Your task to perform on an android device: View the shopping cart on costco.com. Add "bose soundlink mini" to the cart on costco.com Image 0: 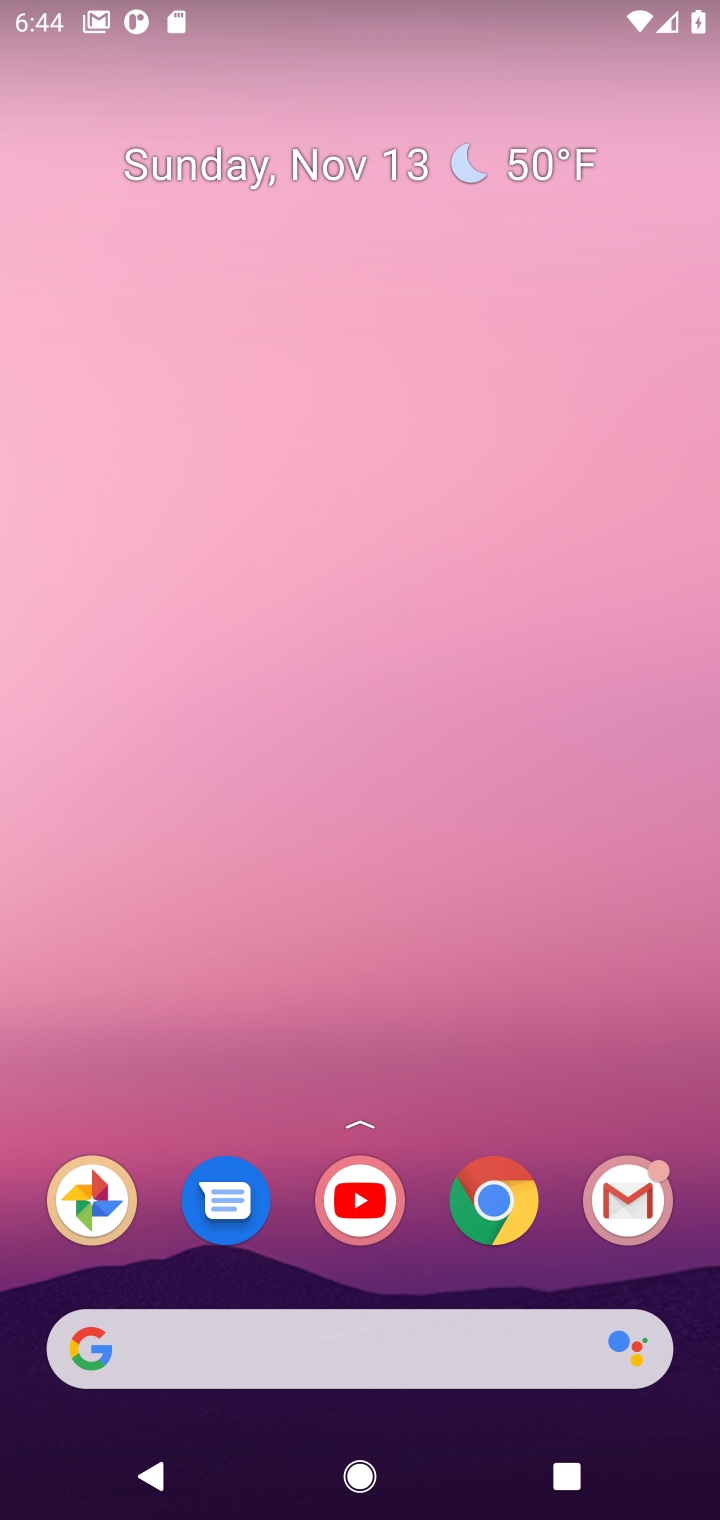
Step 0: click (490, 1212)
Your task to perform on an android device: View the shopping cart on costco.com. Add "bose soundlink mini" to the cart on costco.com Image 1: 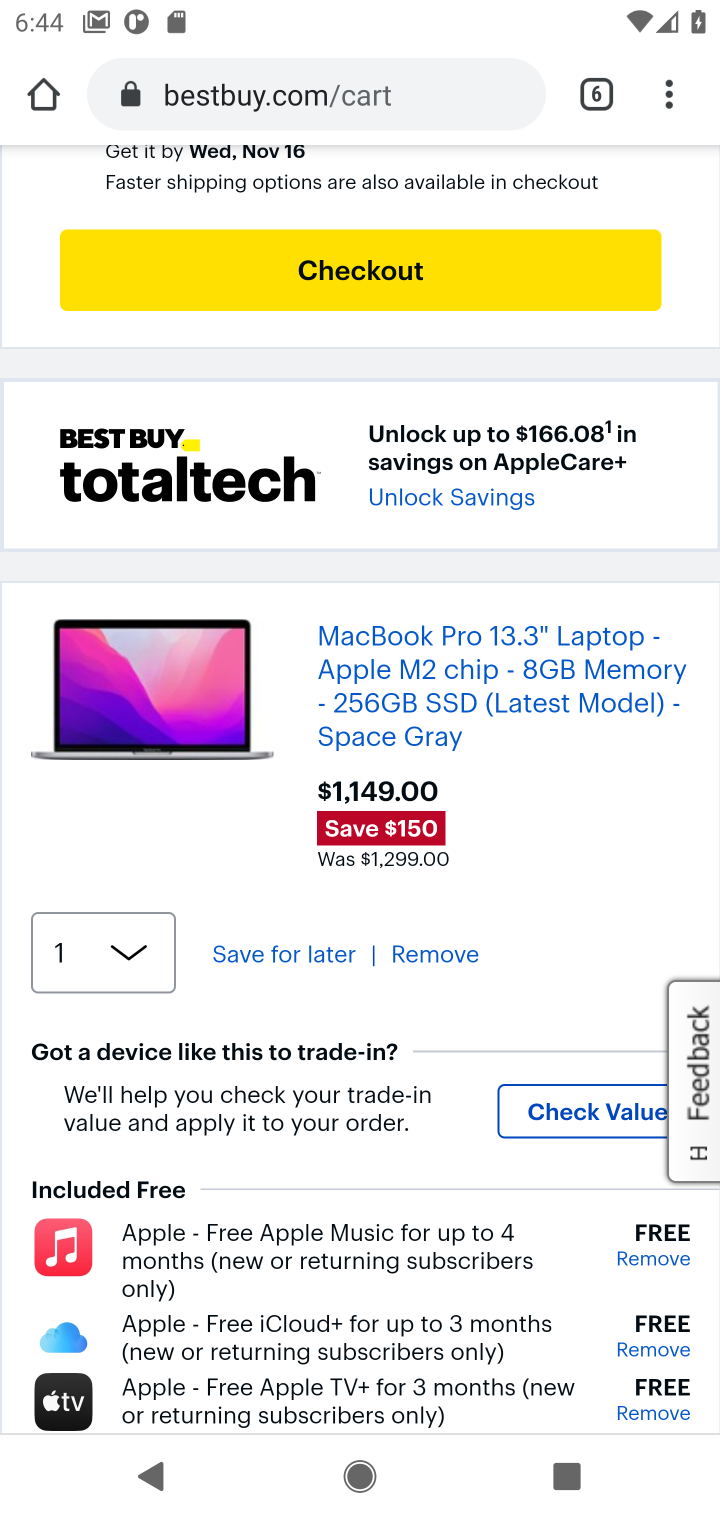
Step 1: click (594, 99)
Your task to perform on an android device: View the shopping cart on costco.com. Add "bose soundlink mini" to the cart on costco.com Image 2: 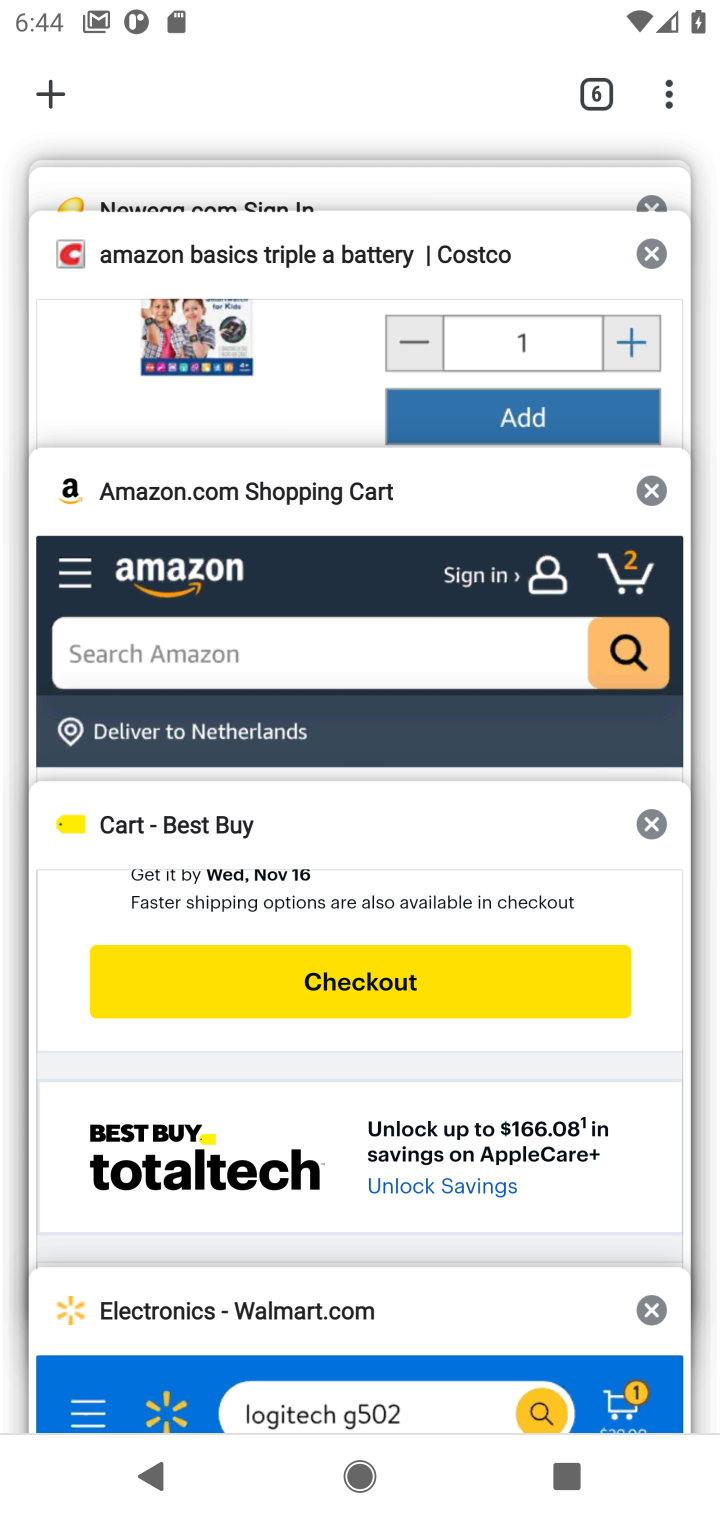
Step 2: click (398, 324)
Your task to perform on an android device: View the shopping cart on costco.com. Add "bose soundlink mini" to the cart on costco.com Image 3: 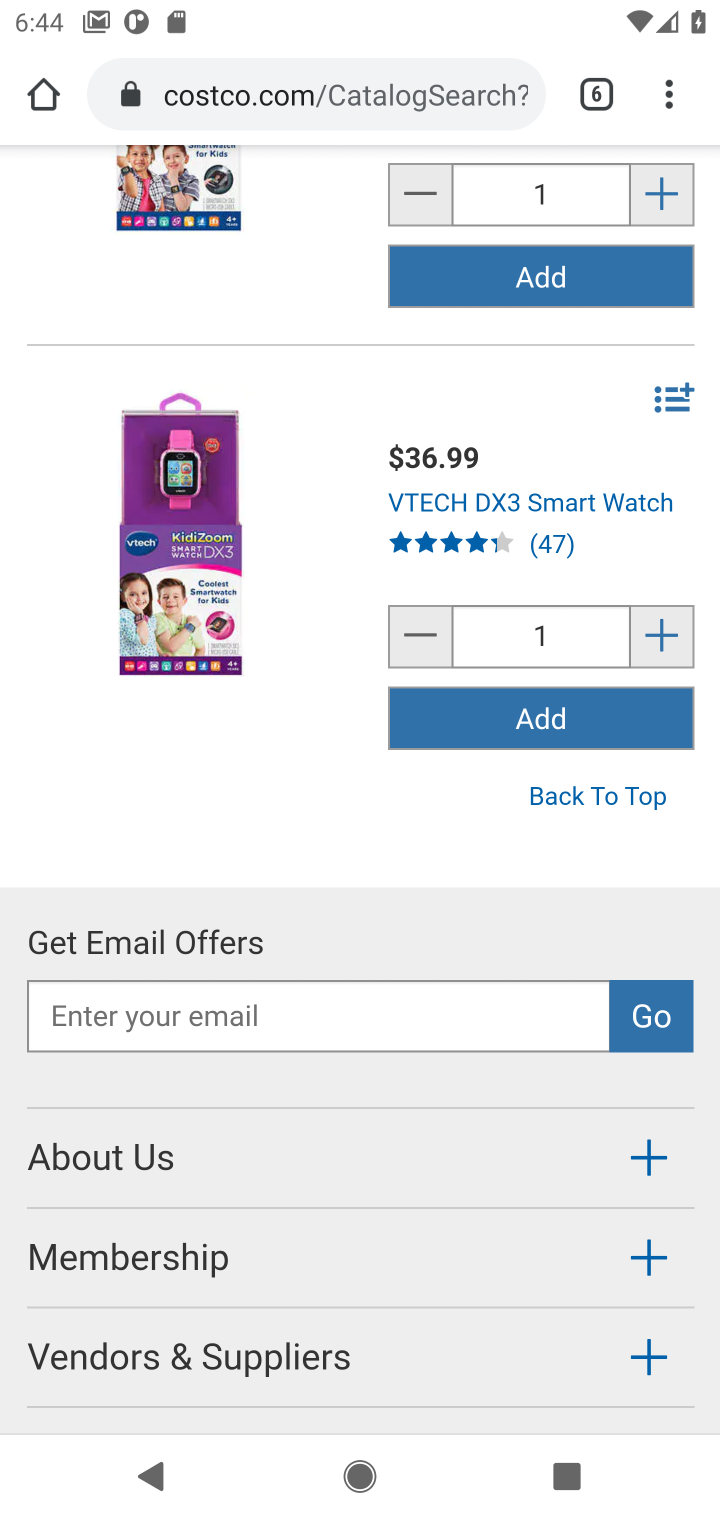
Step 3: drag from (306, 387) to (214, 1194)
Your task to perform on an android device: View the shopping cart on costco.com. Add "bose soundlink mini" to the cart on costco.com Image 4: 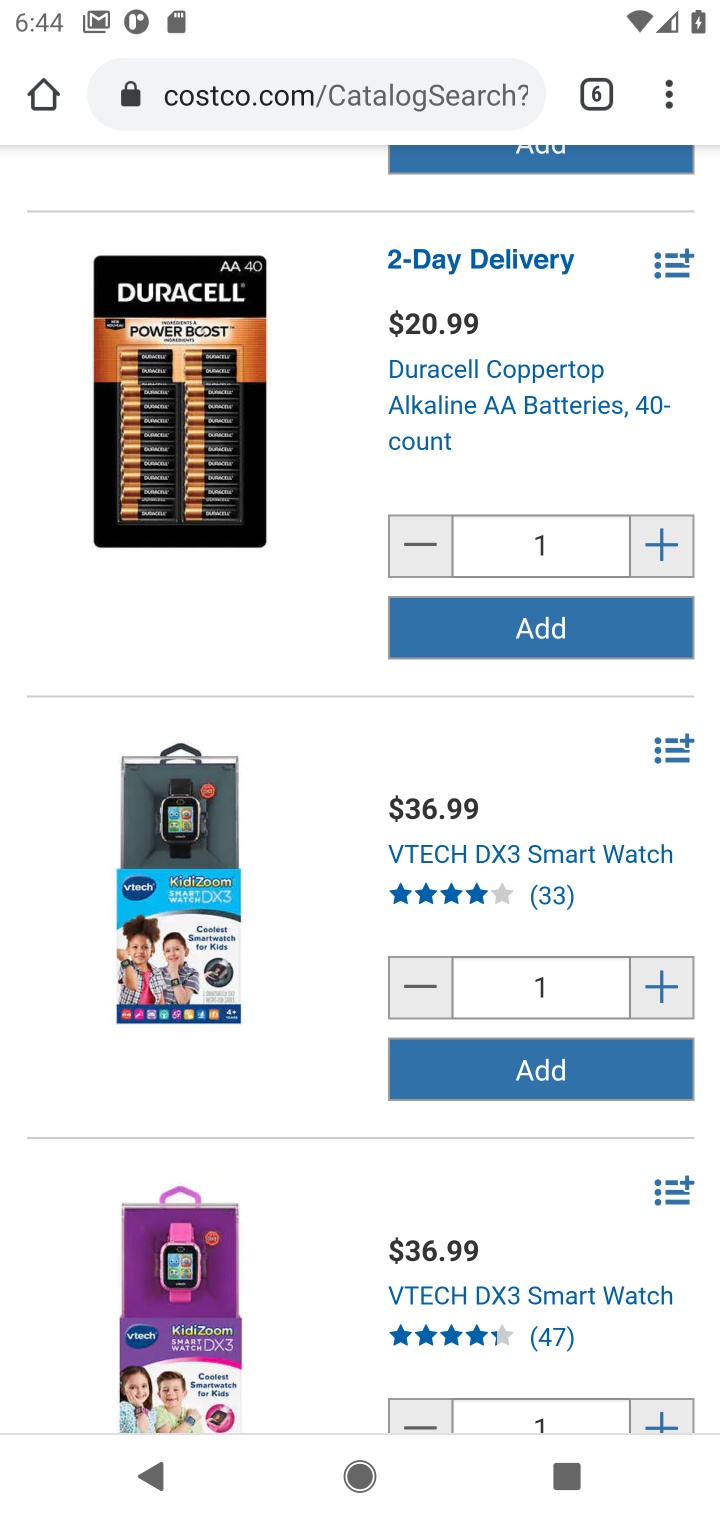
Step 4: drag from (347, 316) to (406, 1271)
Your task to perform on an android device: View the shopping cart on costco.com. Add "bose soundlink mini" to the cart on costco.com Image 5: 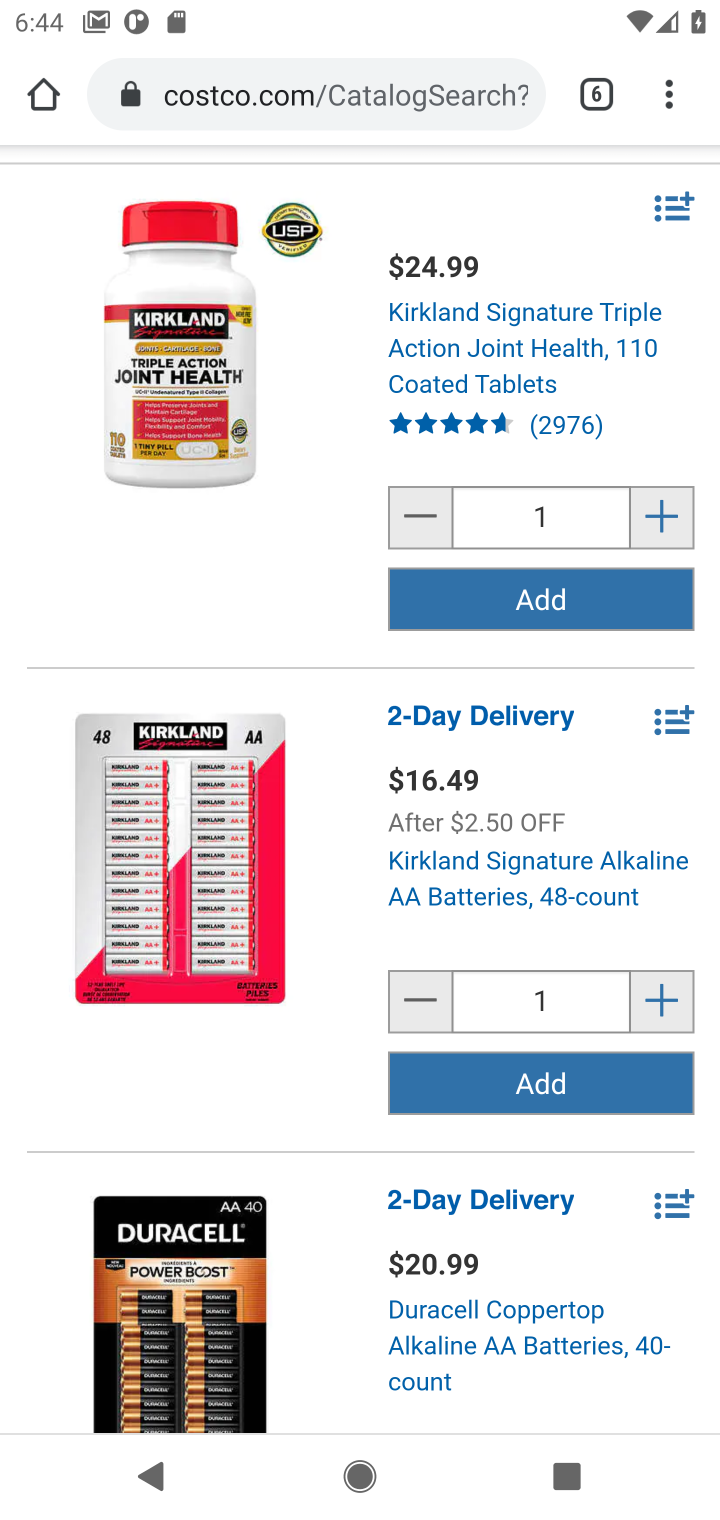
Step 5: drag from (353, 260) to (210, 1384)
Your task to perform on an android device: View the shopping cart on costco.com. Add "bose soundlink mini" to the cart on costco.com Image 6: 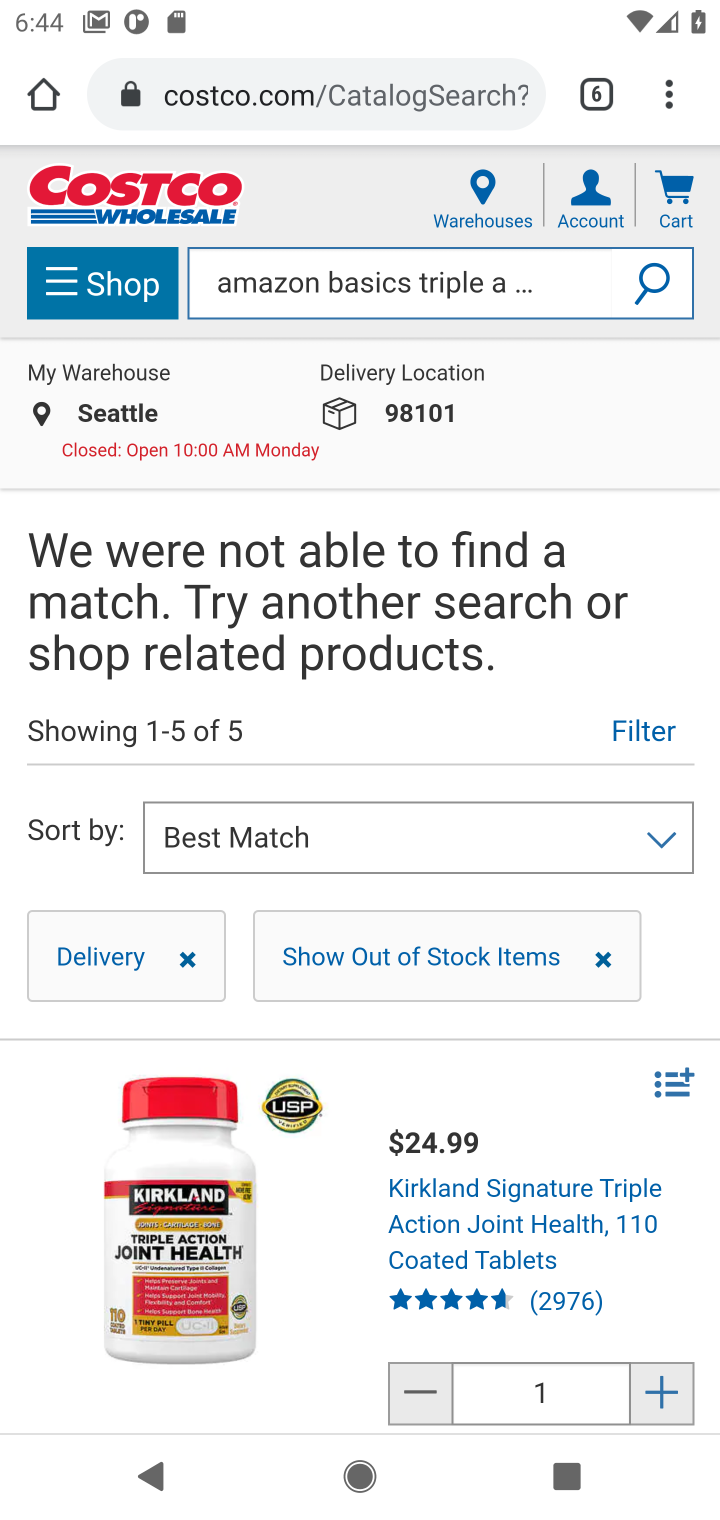
Step 6: click (484, 277)
Your task to perform on an android device: View the shopping cart on costco.com. Add "bose soundlink mini" to the cart on costco.com Image 7: 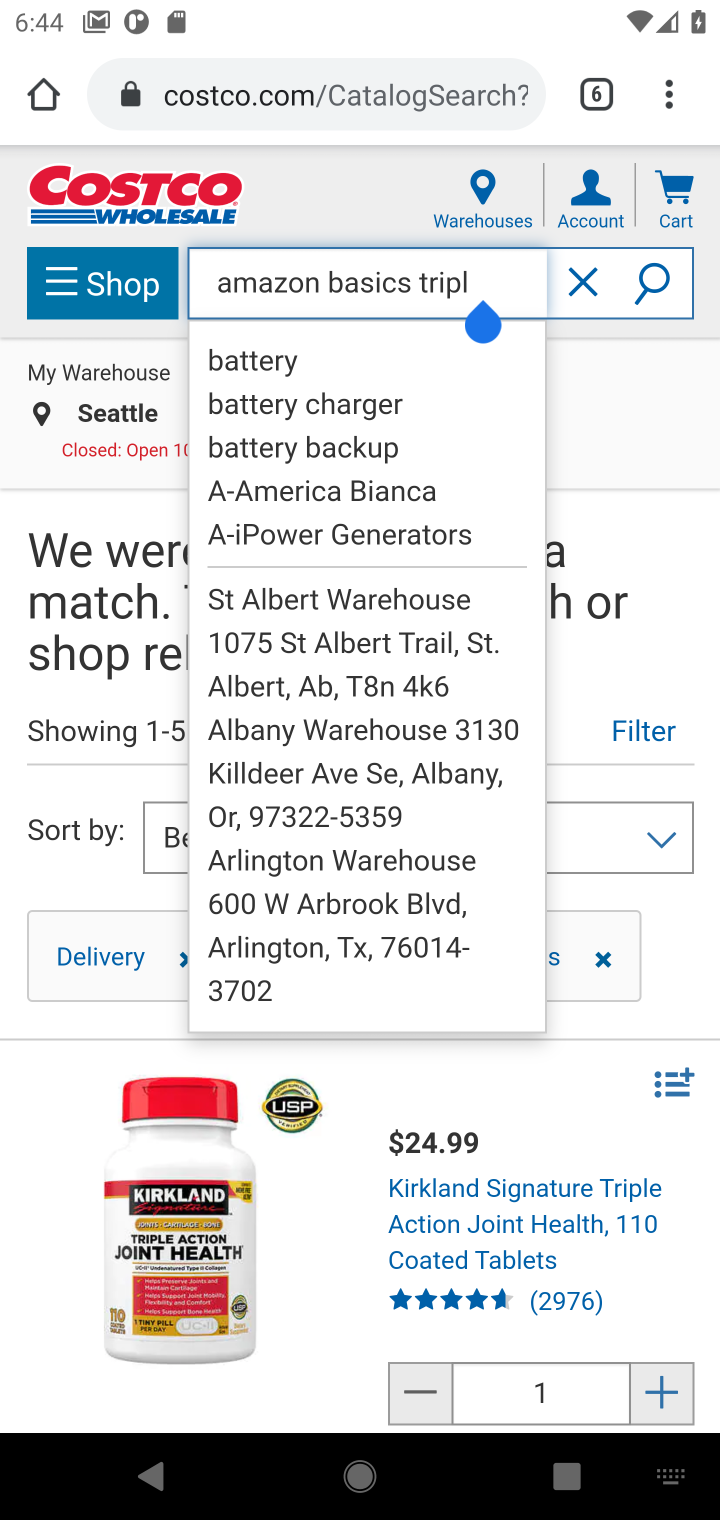
Step 7: click (575, 280)
Your task to perform on an android device: View the shopping cart on costco.com. Add "bose soundlink mini" to the cart on costco.com Image 8: 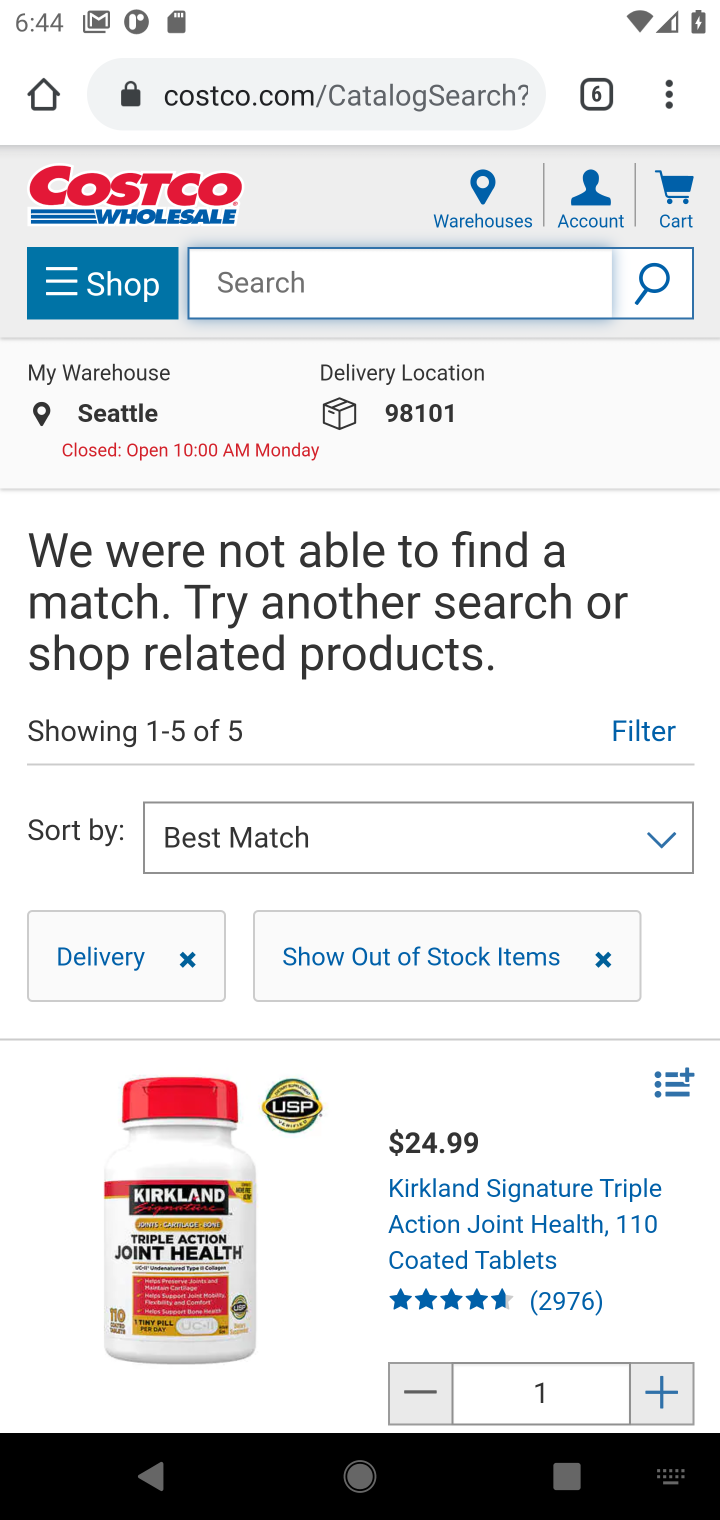
Step 8: type "bose soundlink mini"
Your task to perform on an android device: View the shopping cart on costco.com. Add "bose soundlink mini" to the cart on costco.com Image 9: 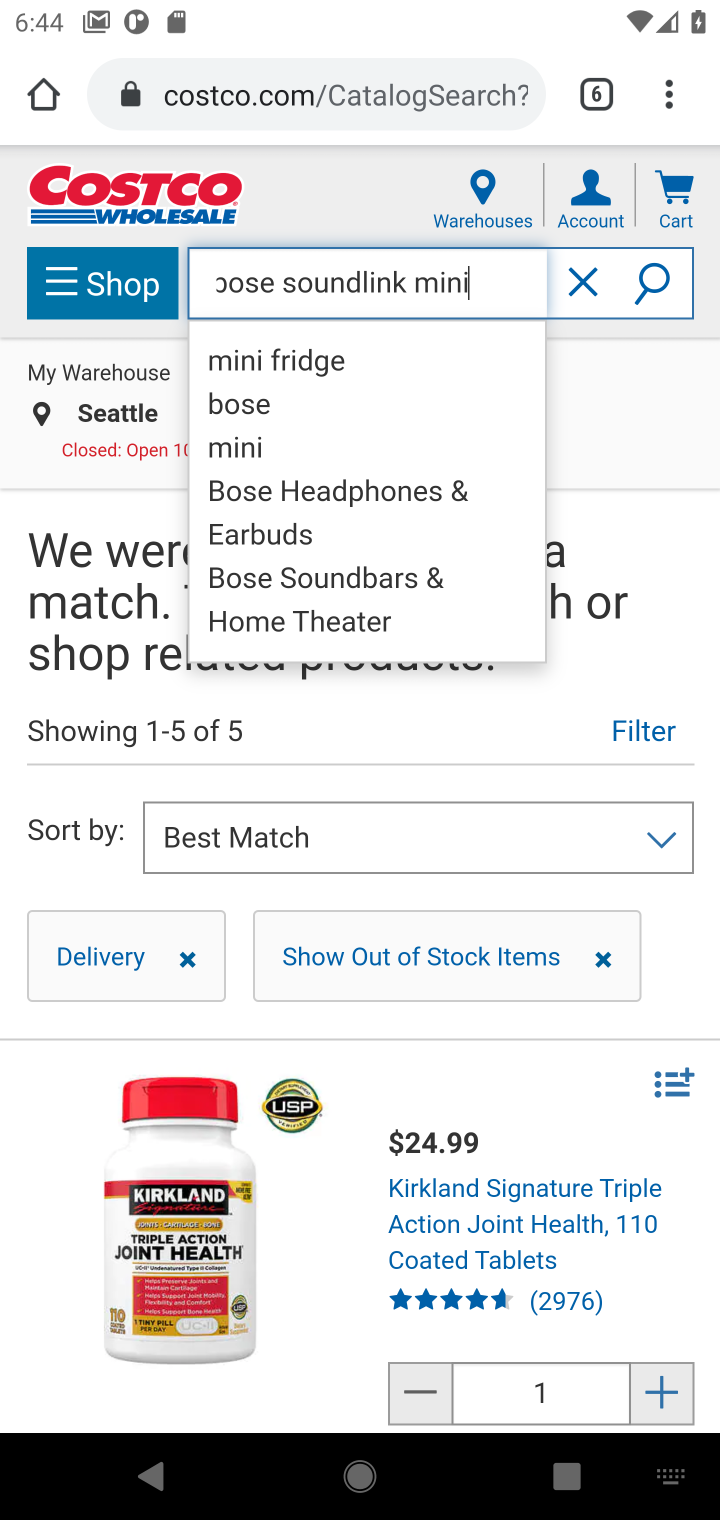
Step 9: click (216, 583)
Your task to perform on an android device: View the shopping cart on costco.com. Add "bose soundlink mini" to the cart on costco.com Image 10: 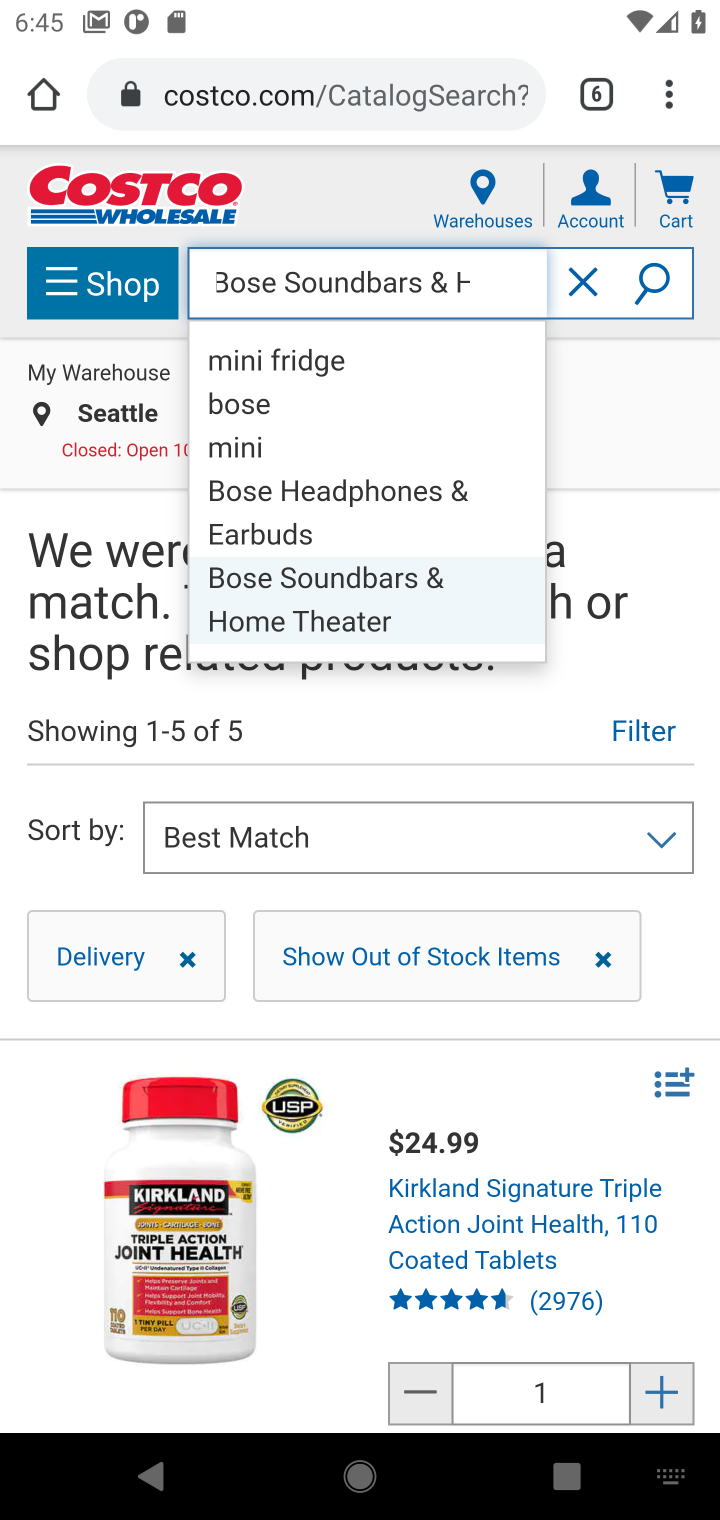
Step 10: click (216, 583)
Your task to perform on an android device: View the shopping cart on costco.com. Add "bose soundlink mini" to the cart on costco.com Image 11: 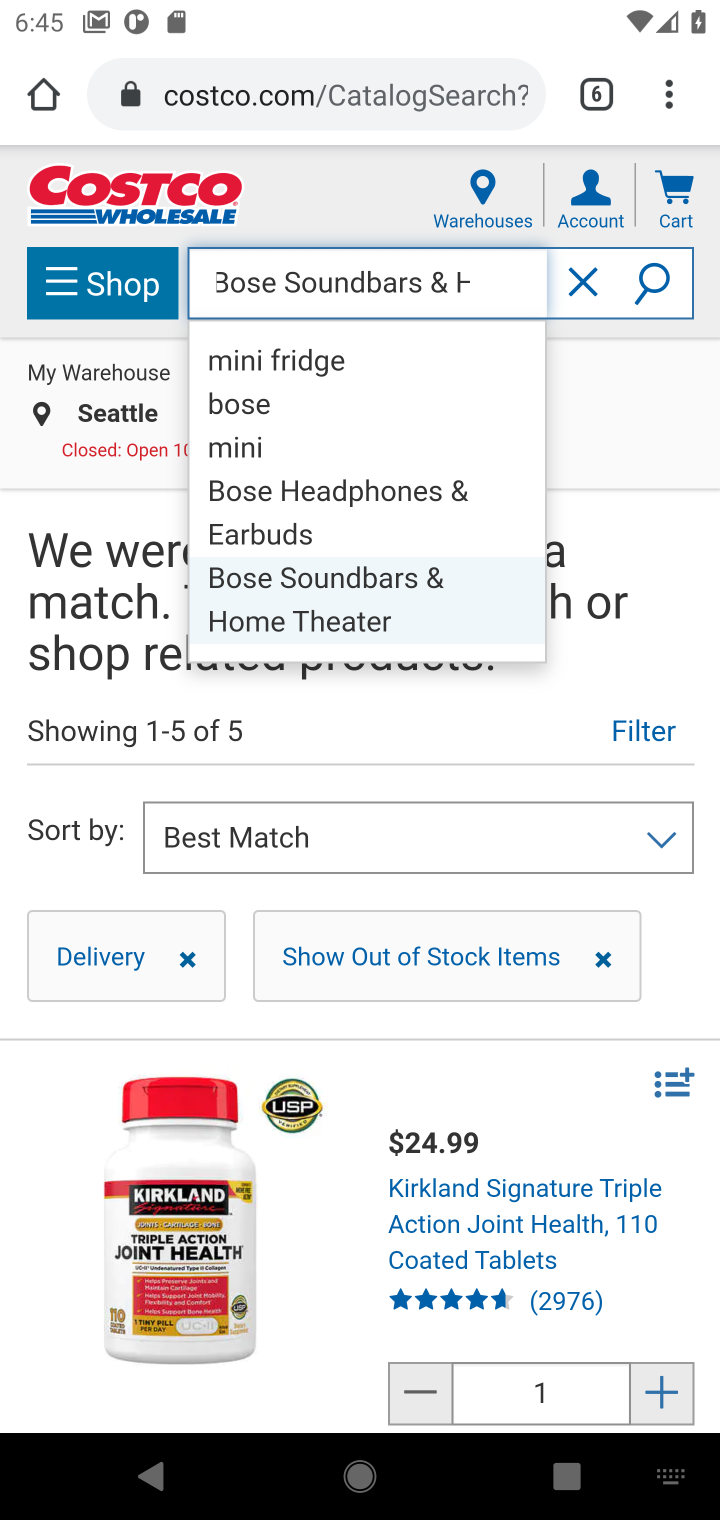
Step 11: click (216, 583)
Your task to perform on an android device: View the shopping cart on costco.com. Add "bose soundlink mini" to the cart on costco.com Image 12: 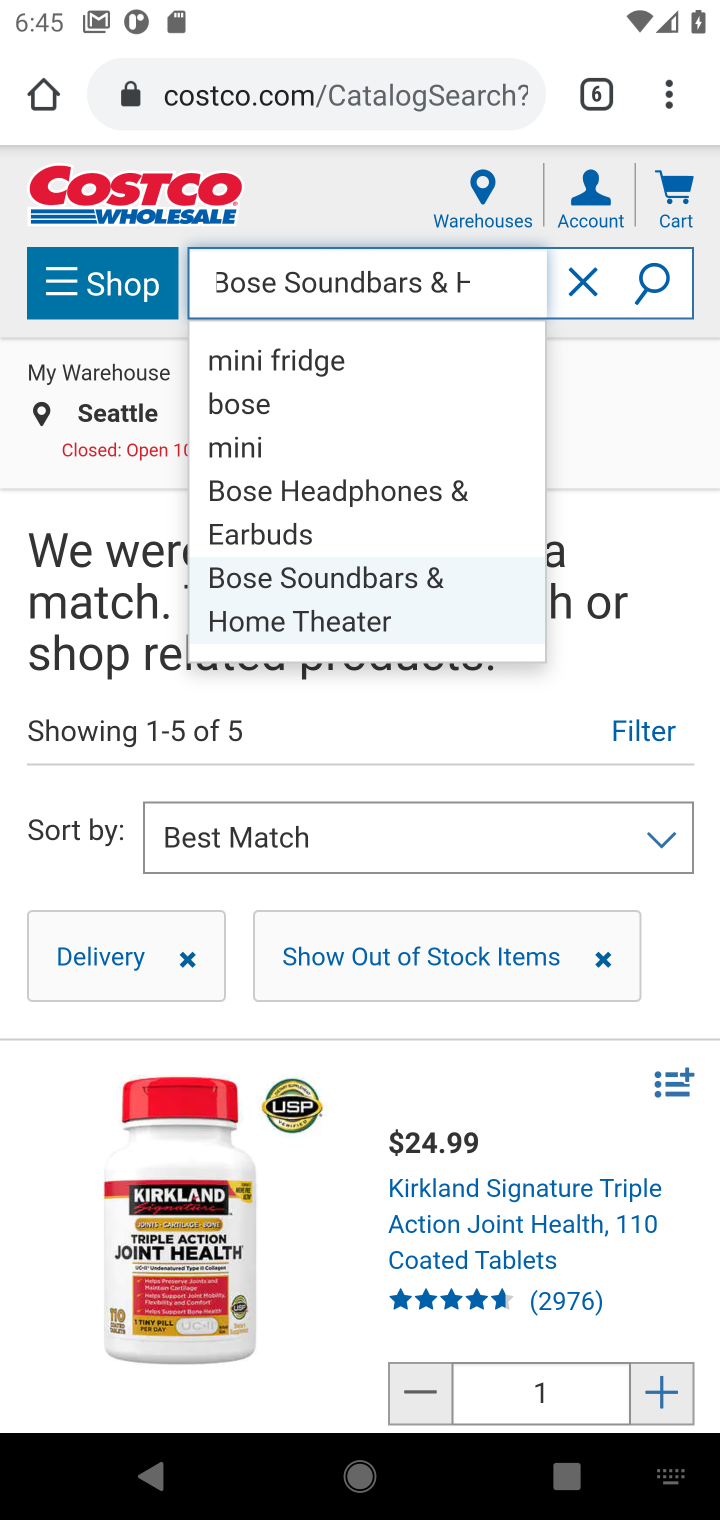
Step 12: click (639, 291)
Your task to perform on an android device: View the shopping cart on costco.com. Add "bose soundlink mini" to the cart on costco.com Image 13: 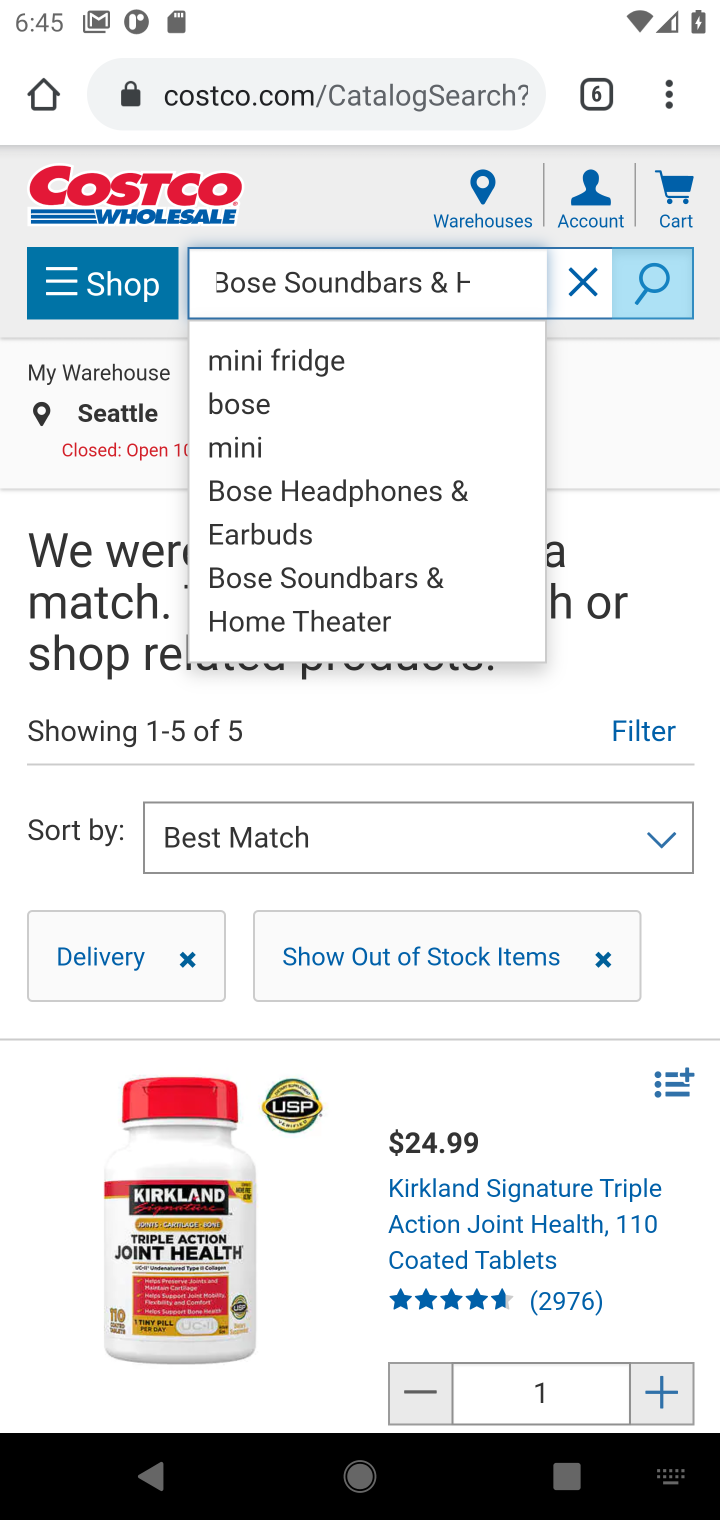
Step 13: click (639, 291)
Your task to perform on an android device: View the shopping cart on costco.com. Add "bose soundlink mini" to the cart on costco.com Image 14: 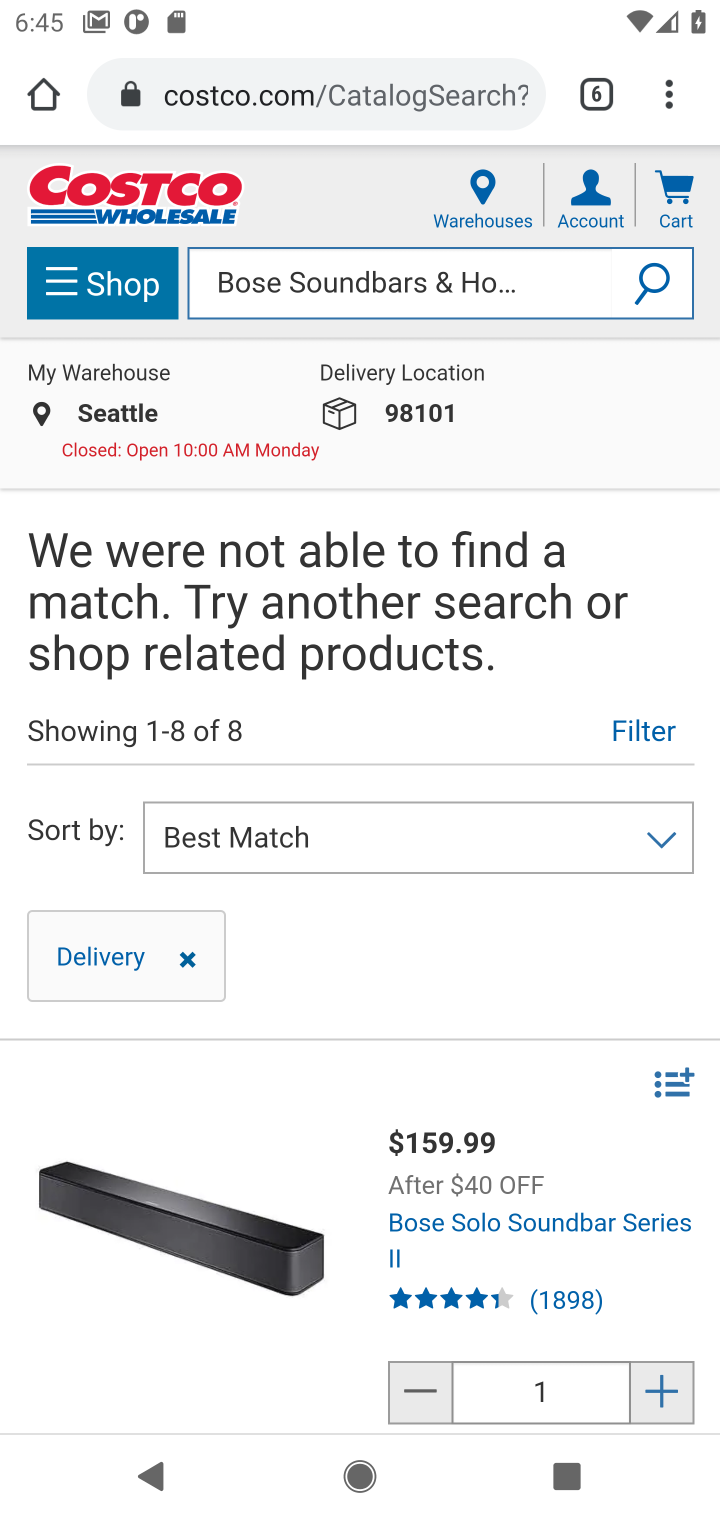
Step 14: drag from (571, 1162) to (628, 736)
Your task to perform on an android device: View the shopping cart on costco.com. Add "bose soundlink mini" to the cart on costco.com Image 15: 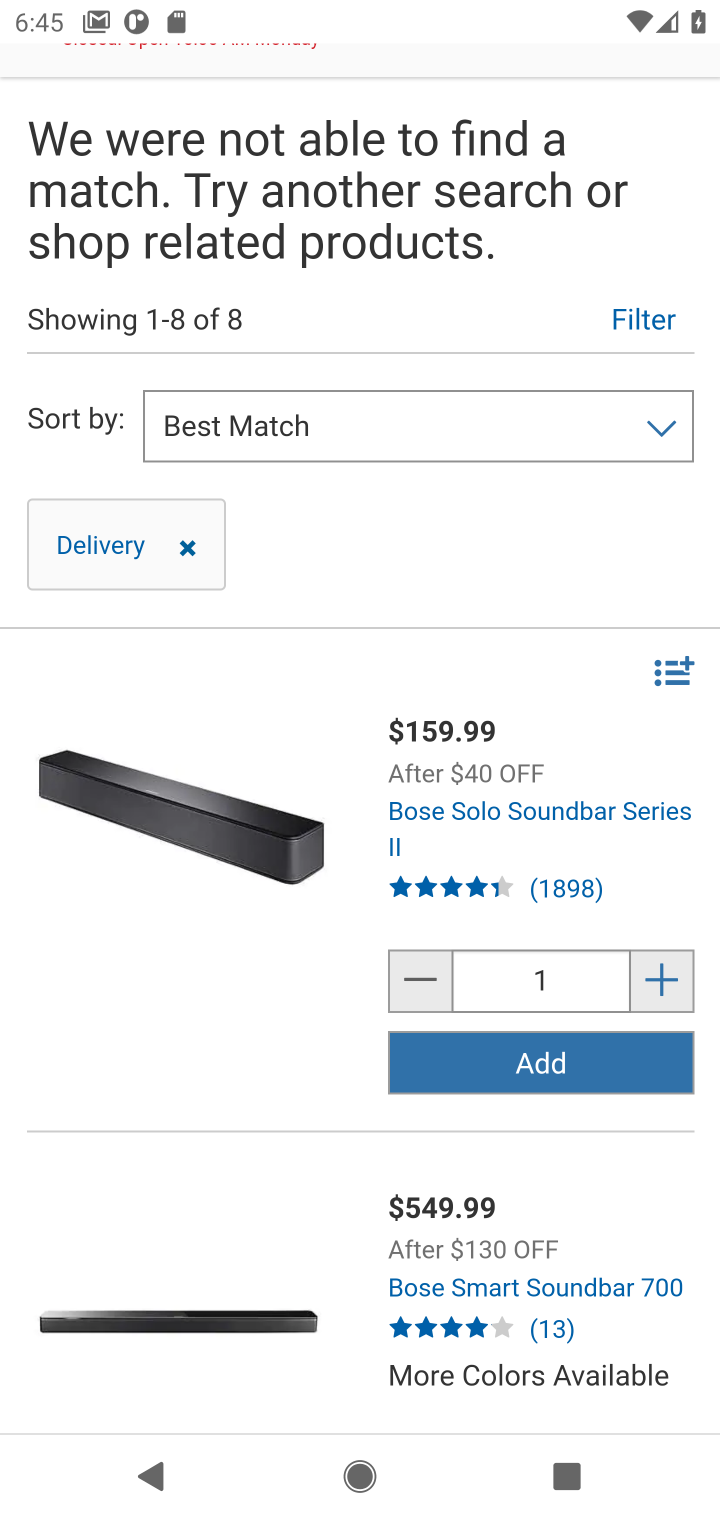
Step 15: drag from (577, 1211) to (625, 638)
Your task to perform on an android device: View the shopping cart on costco.com. Add "bose soundlink mini" to the cart on costco.com Image 16: 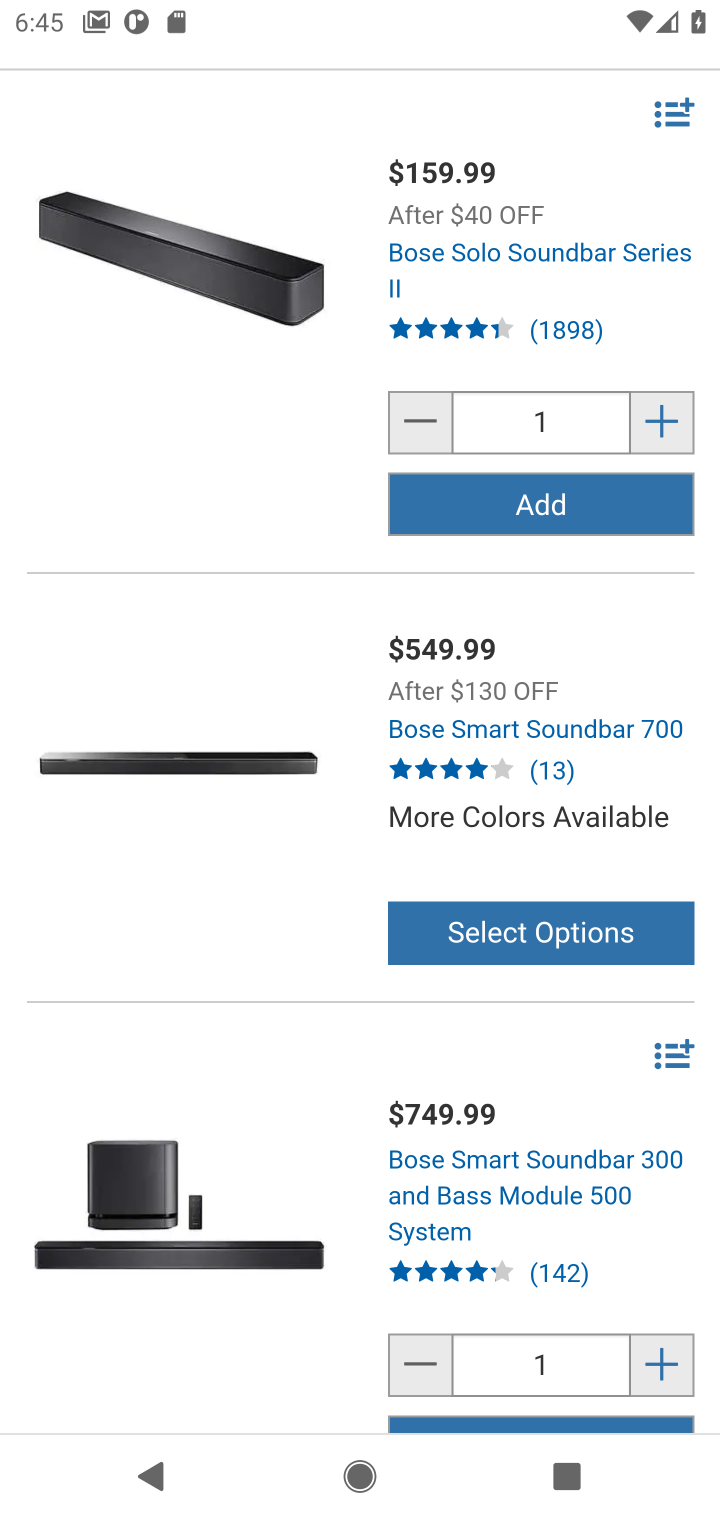
Step 16: click (586, 511)
Your task to perform on an android device: View the shopping cart on costco.com. Add "bose soundlink mini" to the cart on costco.com Image 17: 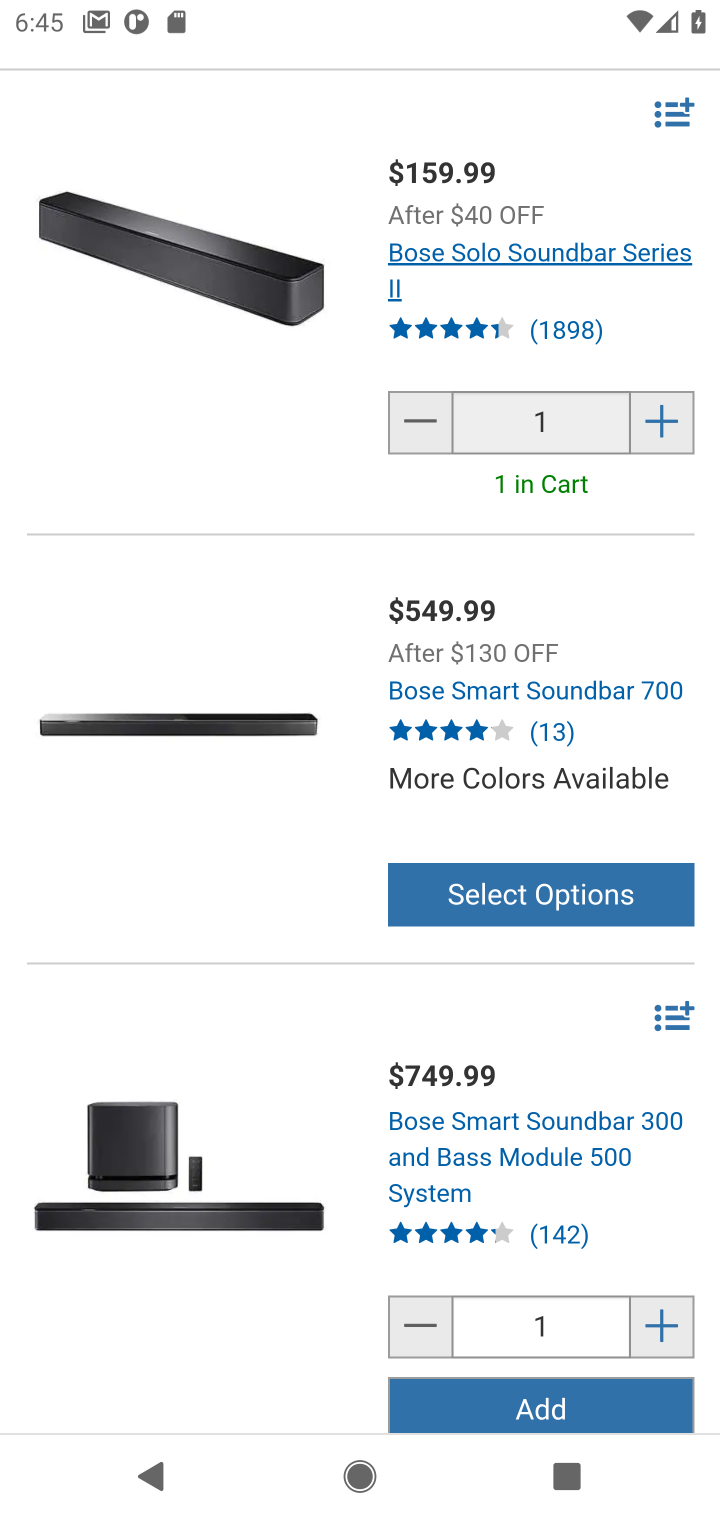
Step 17: task complete